Your task to perform on an android device: toggle wifi Image 0: 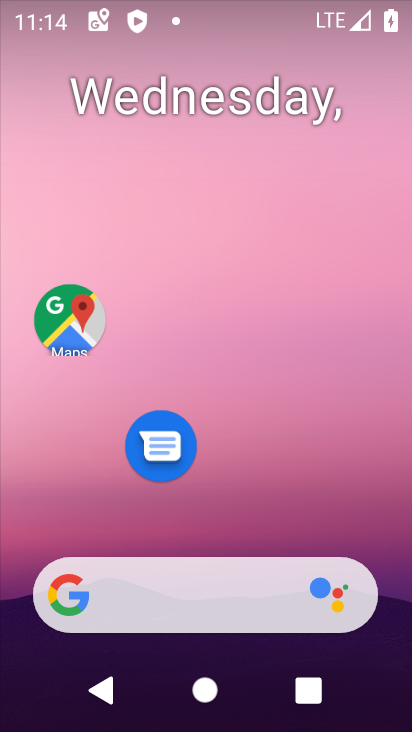
Step 0: drag from (245, 535) to (105, 76)
Your task to perform on an android device: toggle wifi Image 1: 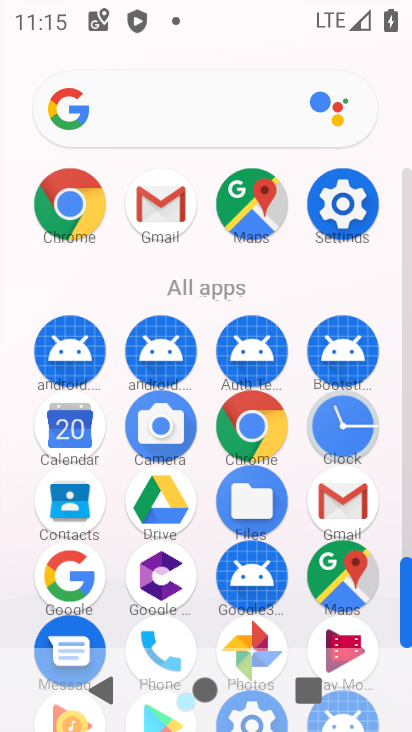
Step 1: click (345, 192)
Your task to perform on an android device: toggle wifi Image 2: 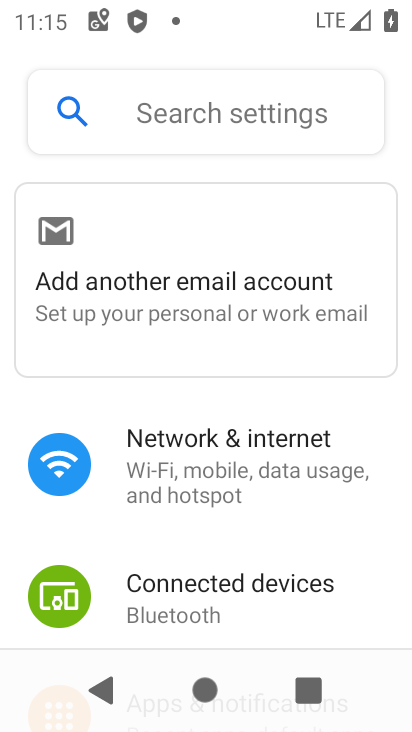
Step 2: click (200, 469)
Your task to perform on an android device: toggle wifi Image 3: 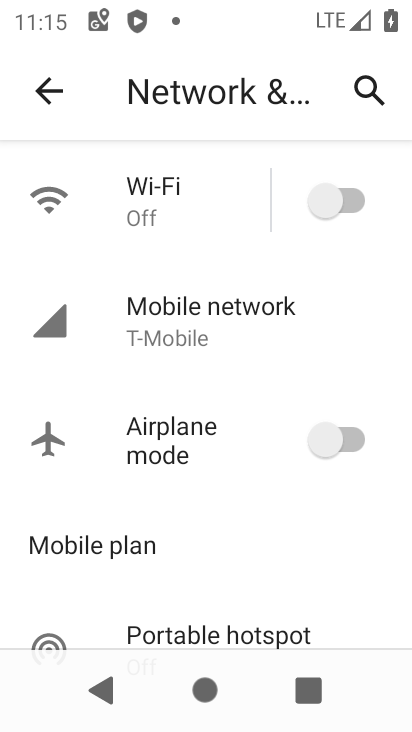
Step 3: click (339, 207)
Your task to perform on an android device: toggle wifi Image 4: 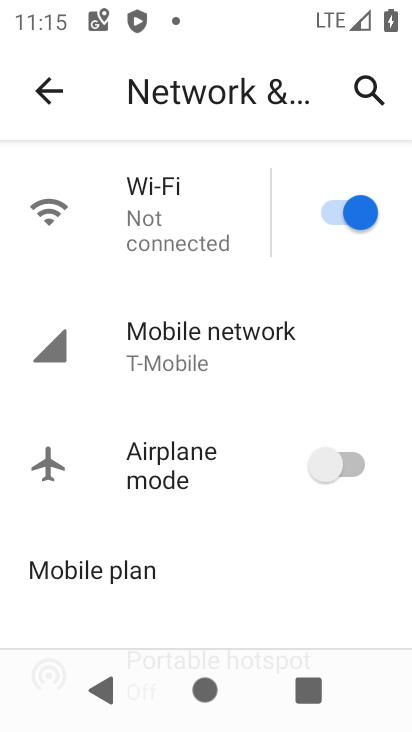
Step 4: task complete